Your task to perform on an android device: allow notifications from all sites in the chrome app Image 0: 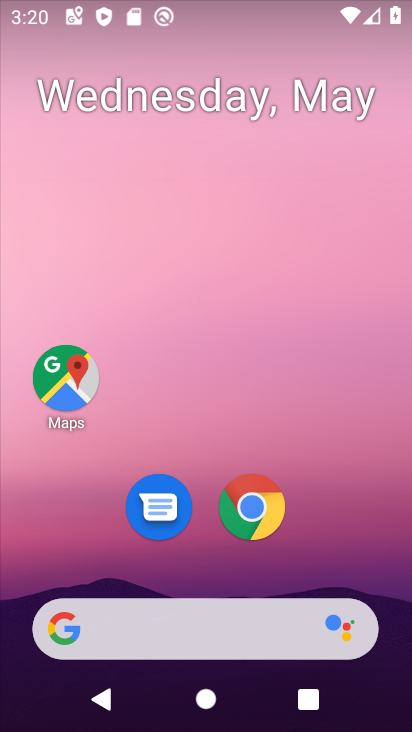
Step 0: click (265, 500)
Your task to perform on an android device: allow notifications from all sites in the chrome app Image 1: 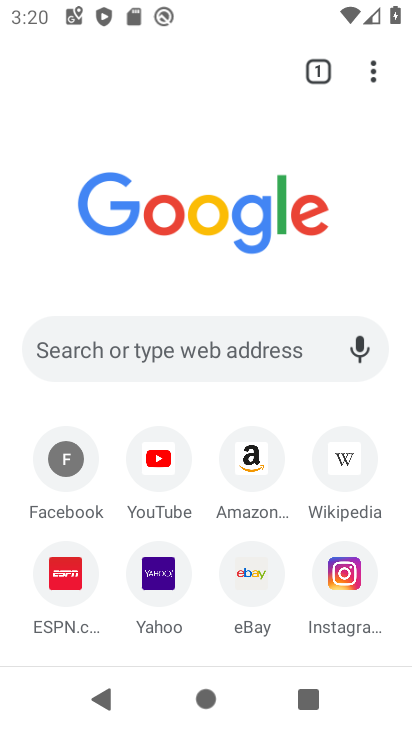
Step 1: drag from (375, 68) to (109, 499)
Your task to perform on an android device: allow notifications from all sites in the chrome app Image 2: 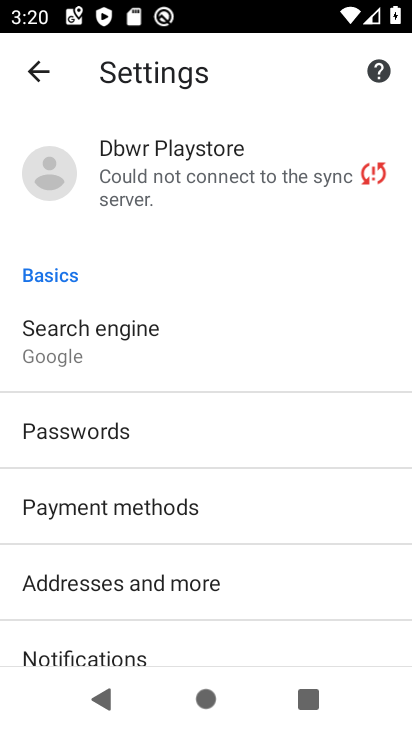
Step 2: drag from (118, 607) to (185, 162)
Your task to perform on an android device: allow notifications from all sites in the chrome app Image 3: 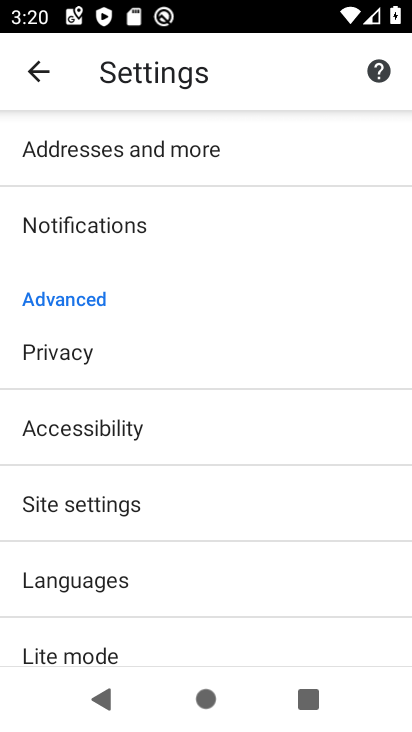
Step 3: click (100, 224)
Your task to perform on an android device: allow notifications from all sites in the chrome app Image 4: 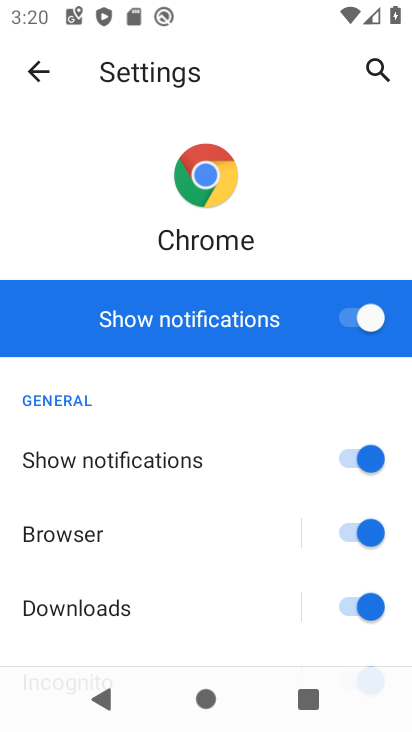
Step 4: task complete